Your task to perform on an android device: find photos in the google photos app Image 0: 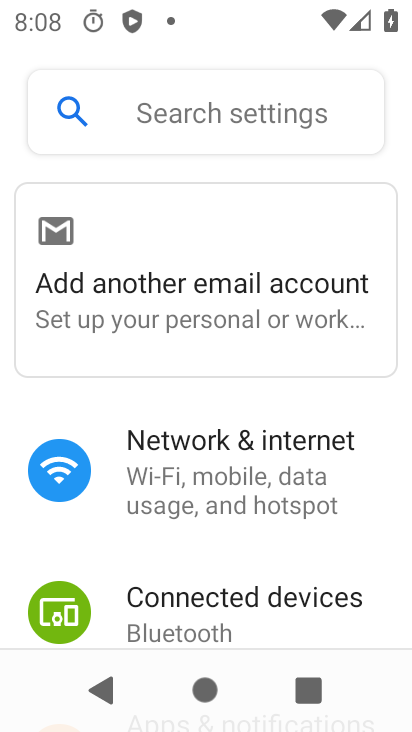
Step 0: press back button
Your task to perform on an android device: find photos in the google photos app Image 1: 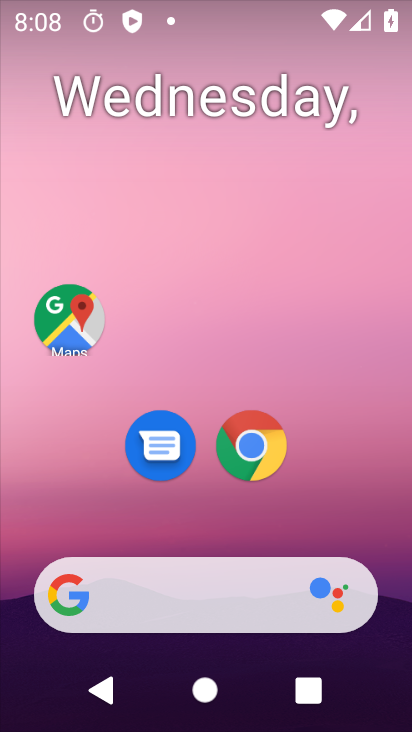
Step 1: drag from (314, 535) to (312, 167)
Your task to perform on an android device: find photos in the google photos app Image 2: 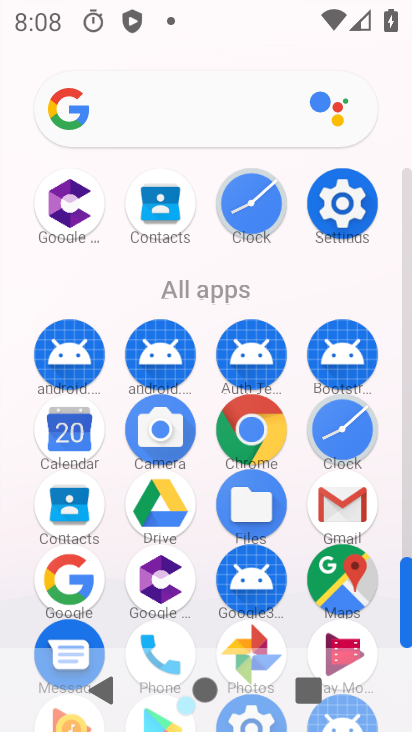
Step 2: click (258, 634)
Your task to perform on an android device: find photos in the google photos app Image 3: 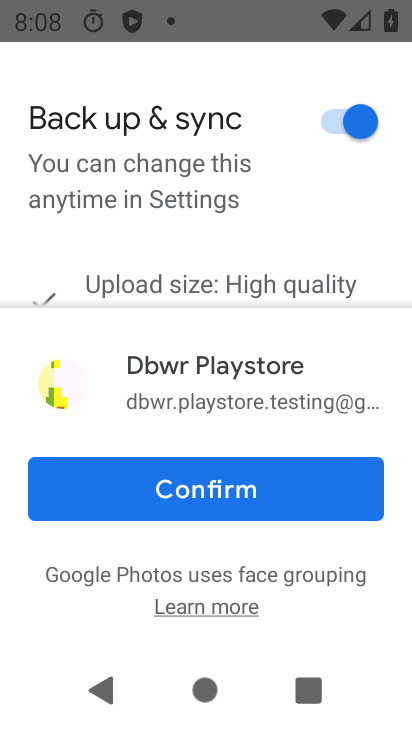
Step 3: click (172, 495)
Your task to perform on an android device: find photos in the google photos app Image 4: 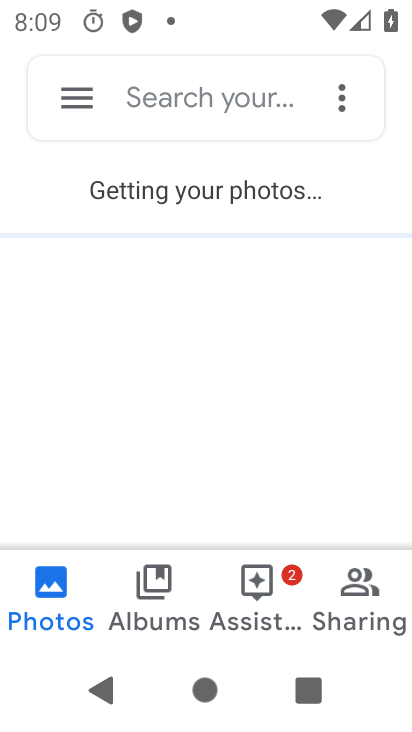
Step 4: click (192, 107)
Your task to perform on an android device: find photos in the google photos app Image 5: 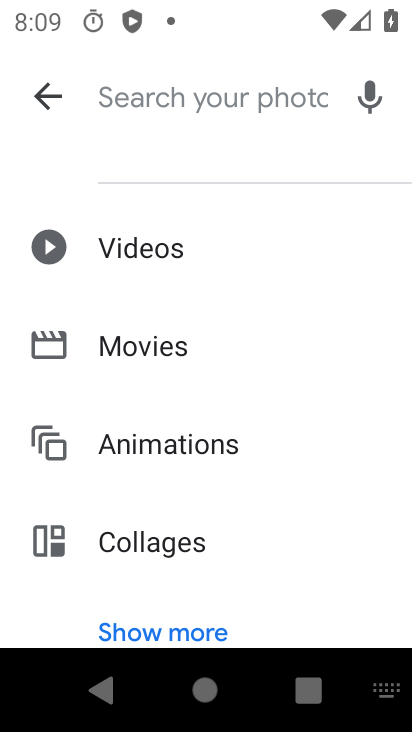
Step 5: click (165, 635)
Your task to perform on an android device: find photos in the google photos app Image 6: 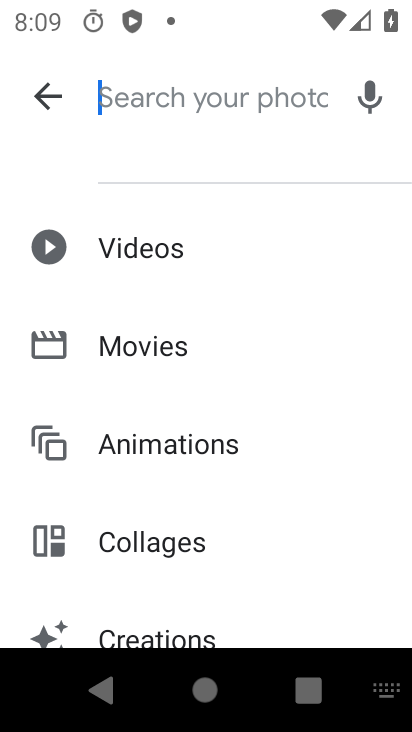
Step 6: drag from (256, 554) to (262, 349)
Your task to perform on an android device: find photos in the google photos app Image 7: 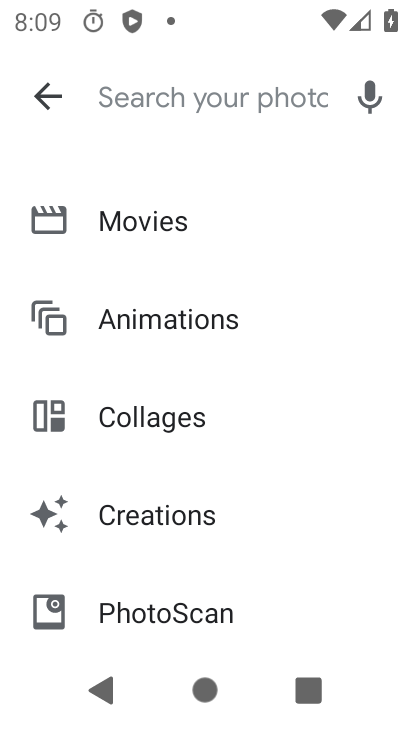
Step 7: drag from (199, 289) to (197, 536)
Your task to perform on an android device: find photos in the google photos app Image 8: 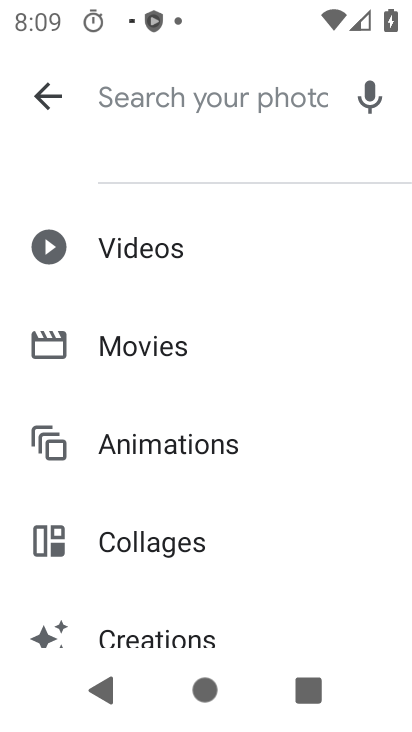
Step 8: click (47, 99)
Your task to perform on an android device: find photos in the google photos app Image 9: 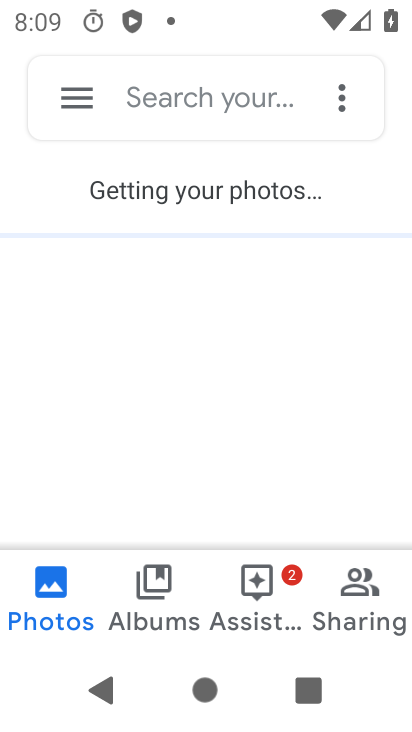
Step 9: click (86, 100)
Your task to perform on an android device: find photos in the google photos app Image 10: 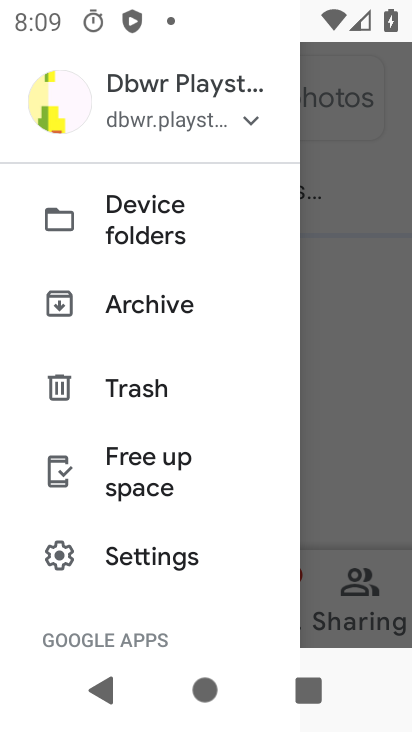
Step 10: drag from (174, 270) to (130, 594)
Your task to perform on an android device: find photos in the google photos app Image 11: 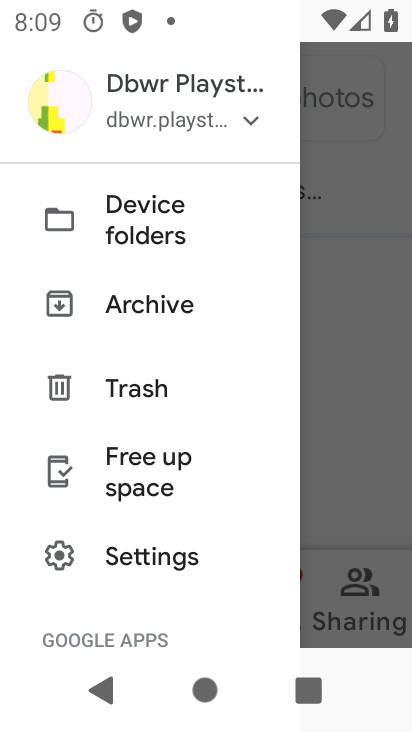
Step 11: press back button
Your task to perform on an android device: find photos in the google photos app Image 12: 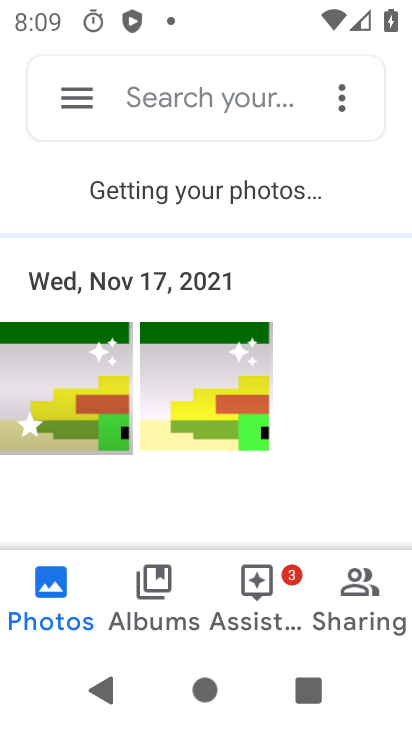
Step 12: click (145, 105)
Your task to perform on an android device: find photos in the google photos app Image 13: 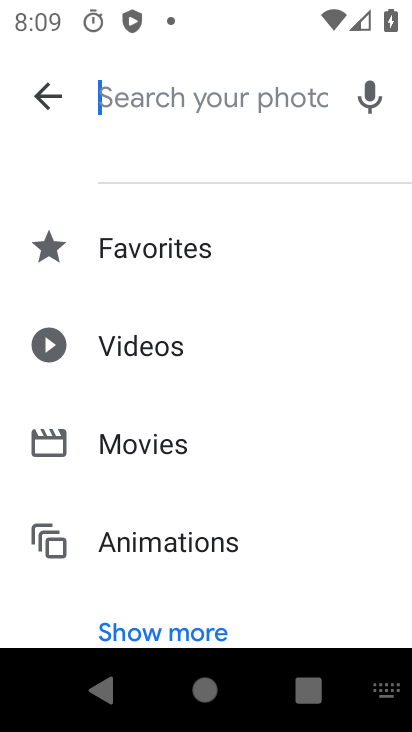
Step 13: click (165, 246)
Your task to perform on an android device: find photos in the google photos app Image 14: 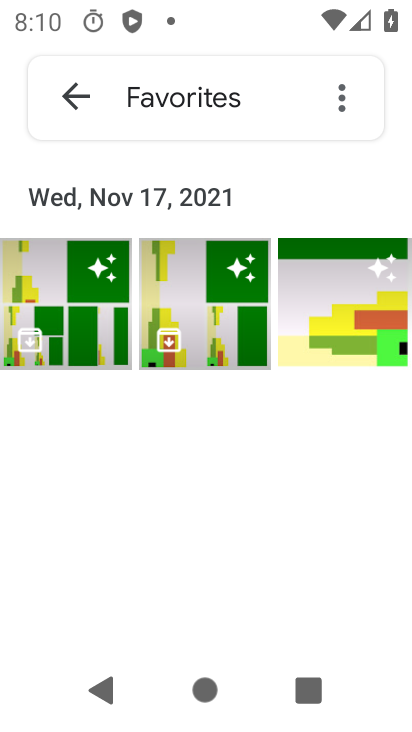
Step 14: task complete